Your task to perform on an android device: Add "razer blade" to the cart on bestbuy.com Image 0: 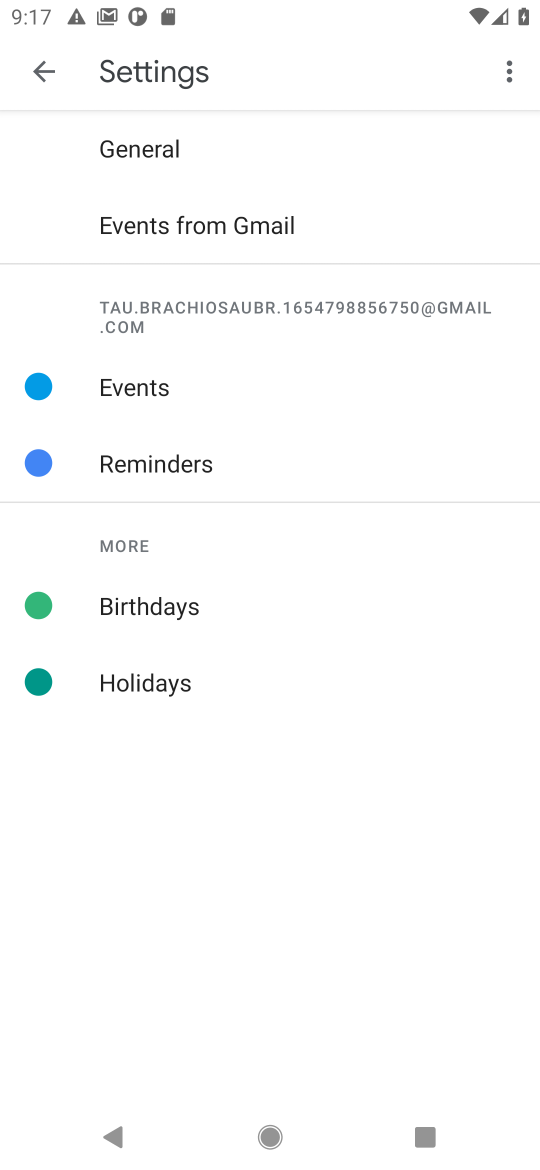
Step 0: press home button
Your task to perform on an android device: Add "razer blade" to the cart on bestbuy.com Image 1: 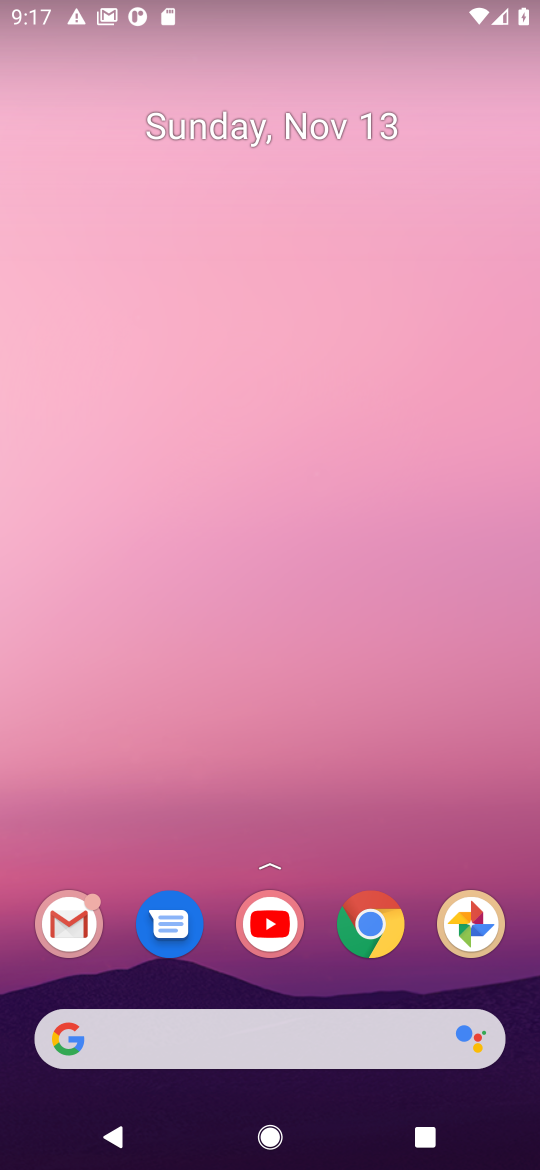
Step 1: click (383, 925)
Your task to perform on an android device: Add "razer blade" to the cart on bestbuy.com Image 2: 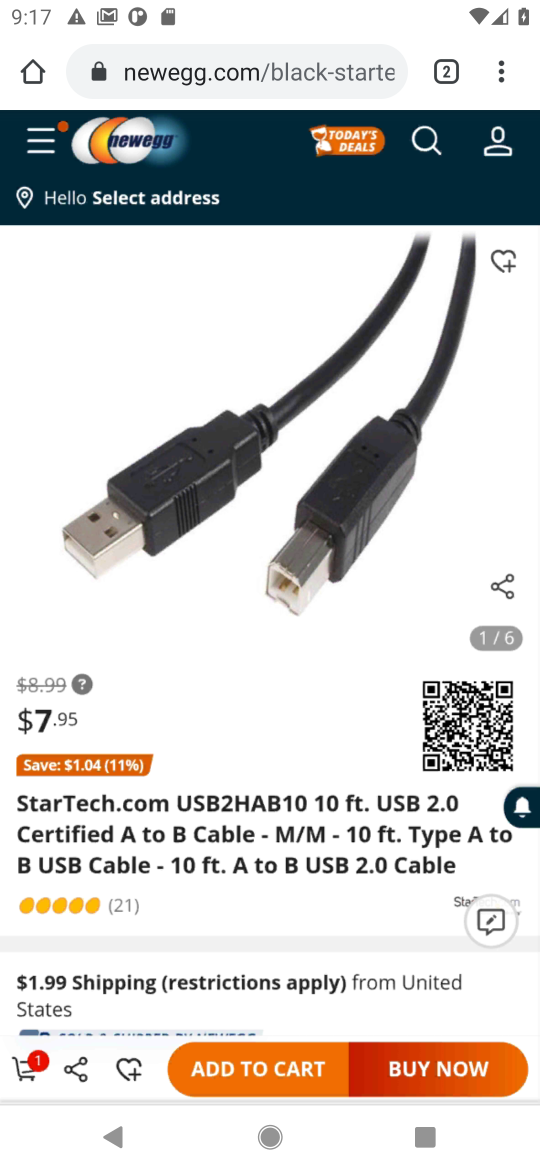
Step 2: click (254, 78)
Your task to perform on an android device: Add "razer blade" to the cart on bestbuy.com Image 3: 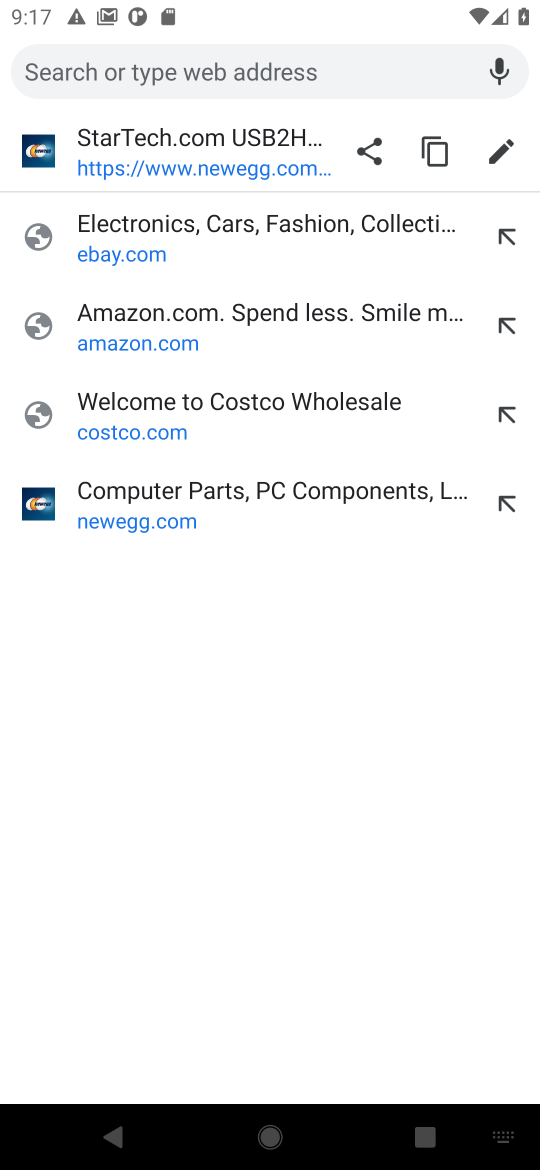
Step 3: type "bestbuy.com"
Your task to perform on an android device: Add "razer blade" to the cart on bestbuy.com Image 4: 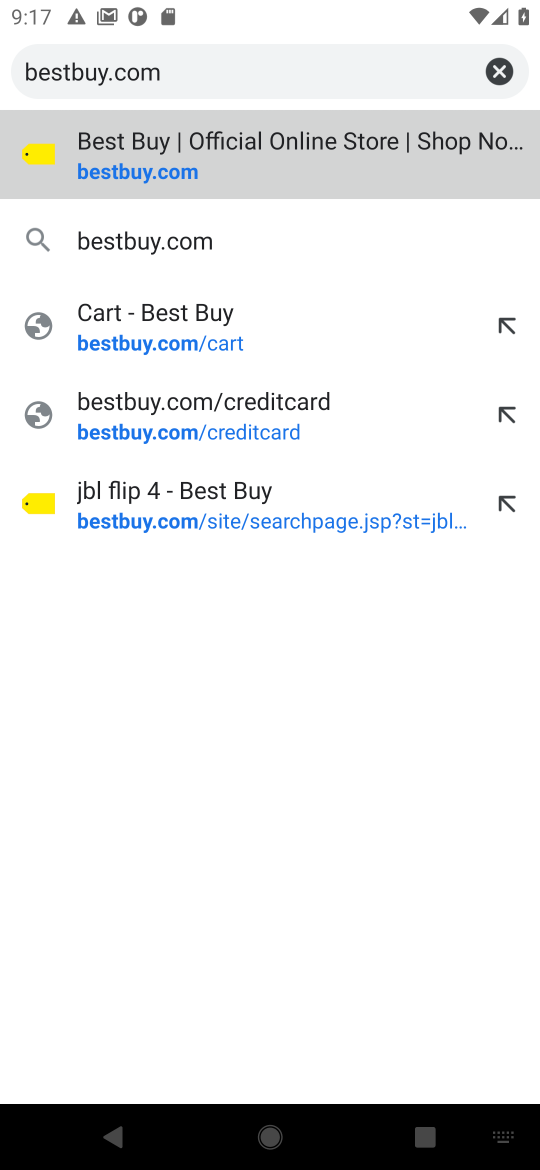
Step 4: click (145, 160)
Your task to perform on an android device: Add "razer blade" to the cart on bestbuy.com Image 5: 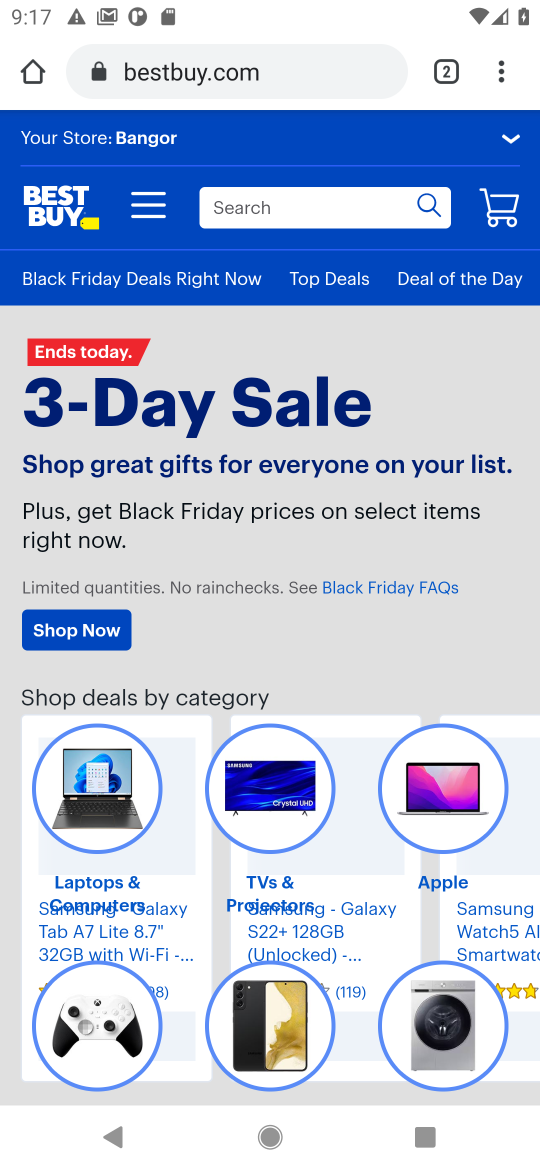
Step 5: click (233, 215)
Your task to perform on an android device: Add "razer blade" to the cart on bestbuy.com Image 6: 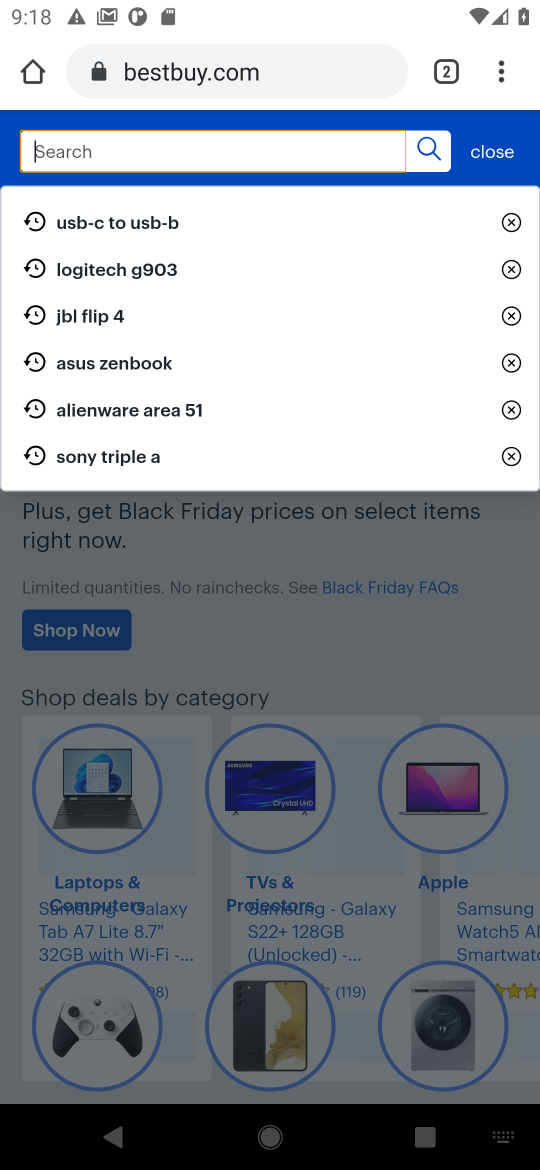
Step 6: type "razer blade"
Your task to perform on an android device: Add "razer blade" to the cart on bestbuy.com Image 7: 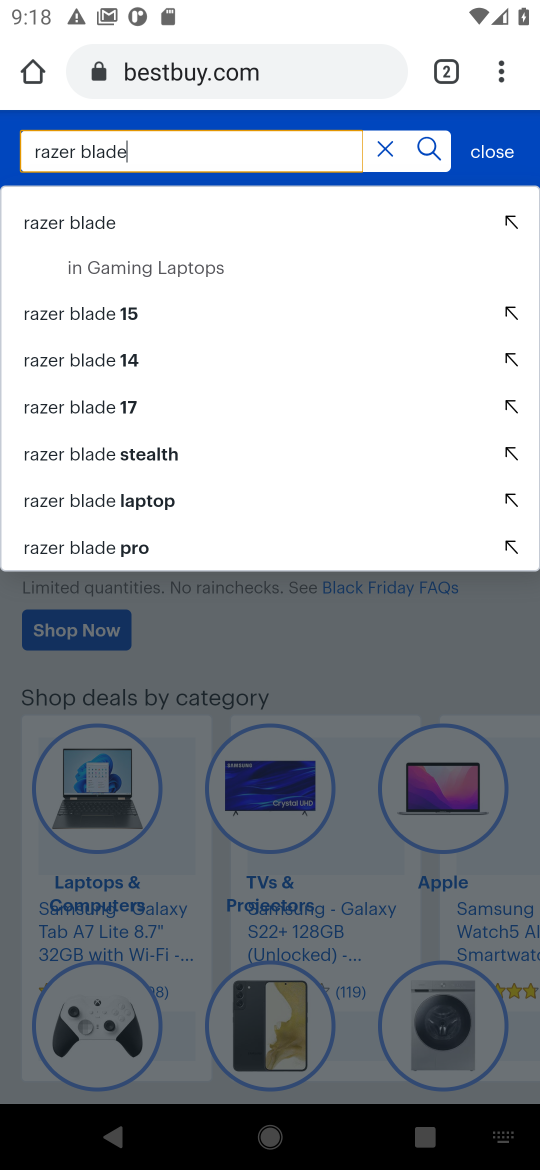
Step 7: click (71, 226)
Your task to perform on an android device: Add "razer blade" to the cart on bestbuy.com Image 8: 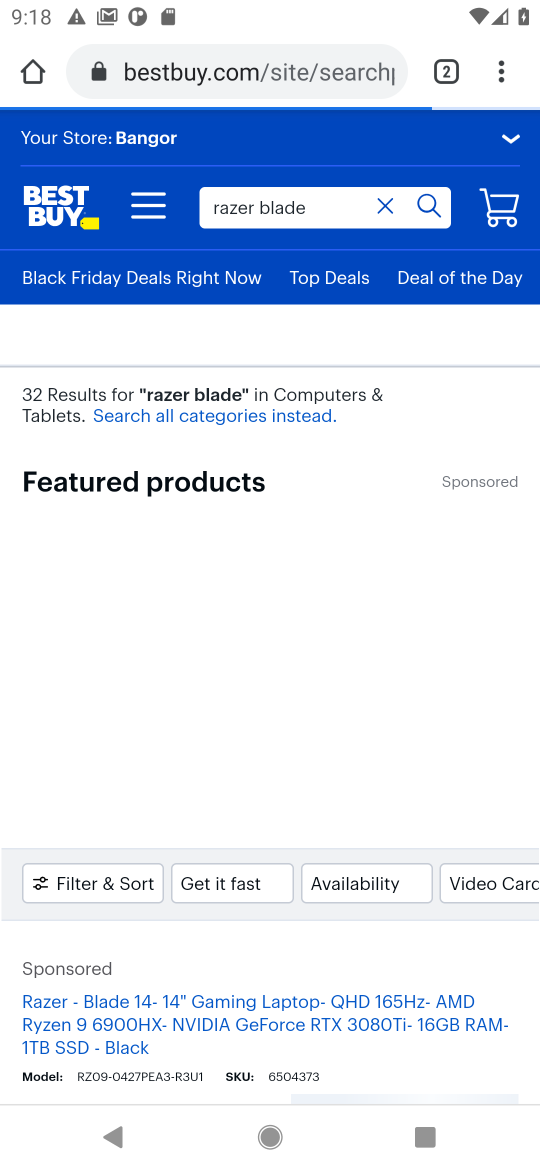
Step 8: drag from (259, 933) to (299, 355)
Your task to perform on an android device: Add "razer blade" to the cart on bestbuy.com Image 9: 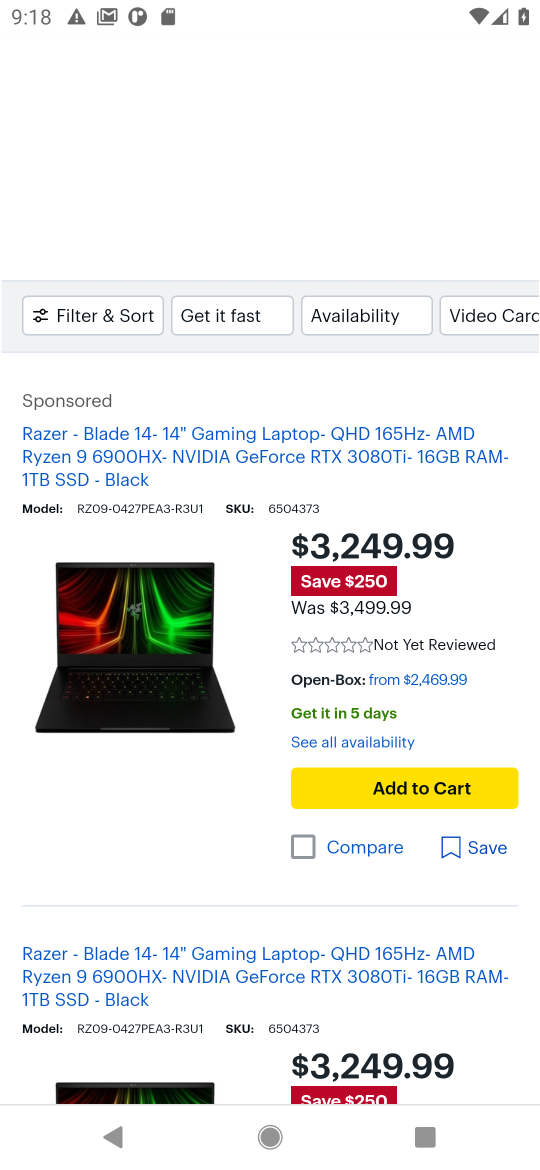
Step 9: click (431, 796)
Your task to perform on an android device: Add "razer blade" to the cart on bestbuy.com Image 10: 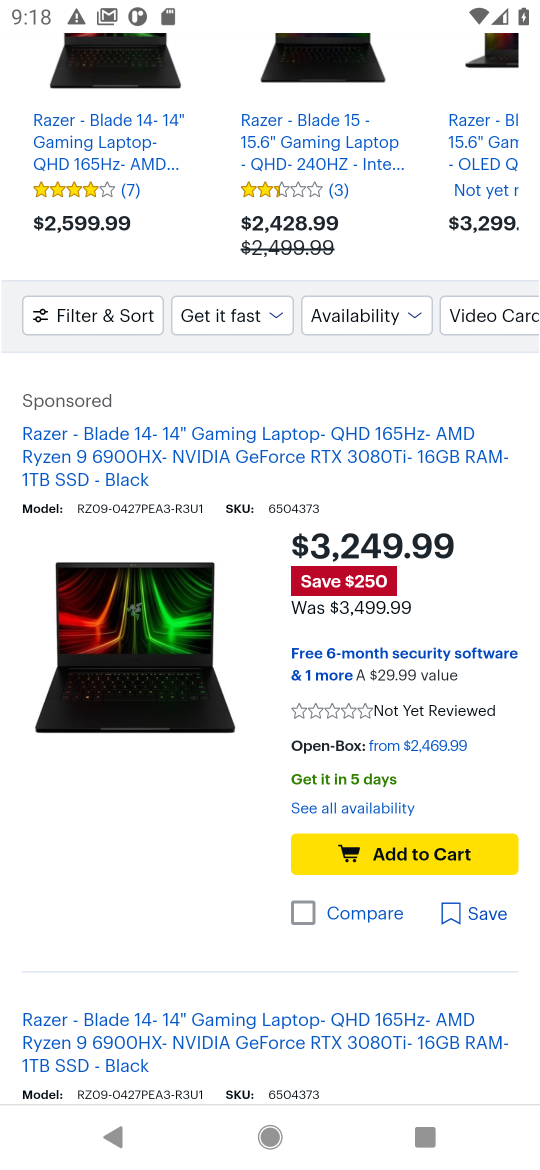
Step 10: click (400, 860)
Your task to perform on an android device: Add "razer blade" to the cart on bestbuy.com Image 11: 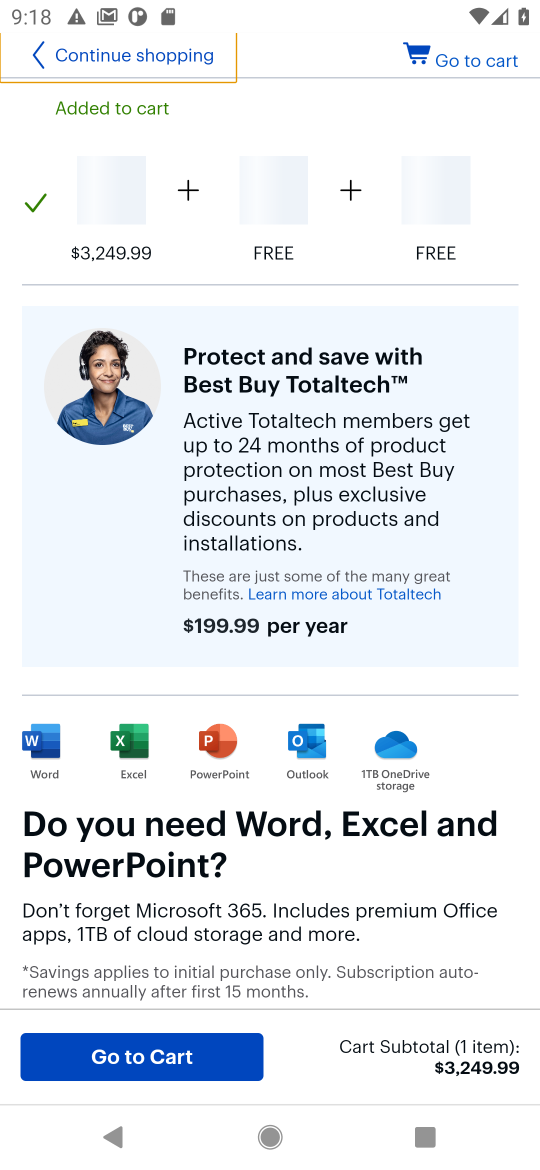
Step 11: task complete